Your task to perform on an android device: Open location settings Image 0: 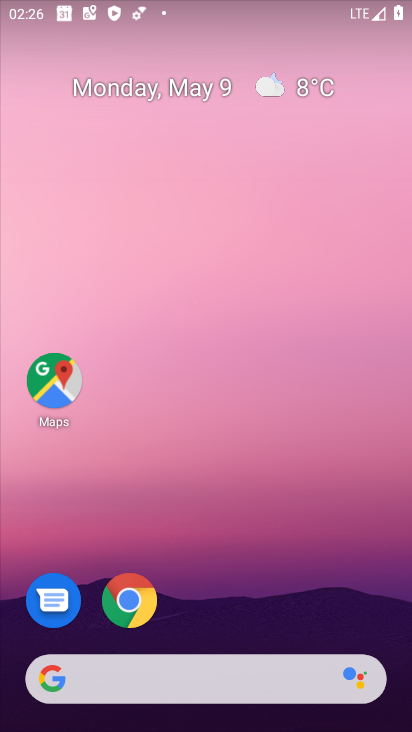
Step 0: drag from (210, 612) to (231, 191)
Your task to perform on an android device: Open location settings Image 1: 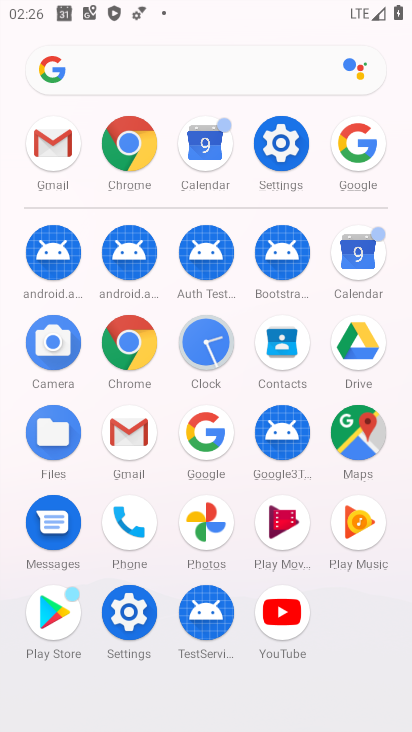
Step 1: click (126, 607)
Your task to perform on an android device: Open location settings Image 2: 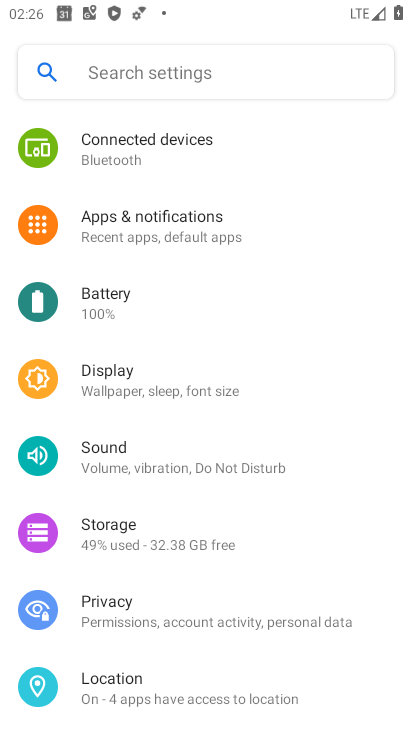
Step 2: click (163, 678)
Your task to perform on an android device: Open location settings Image 3: 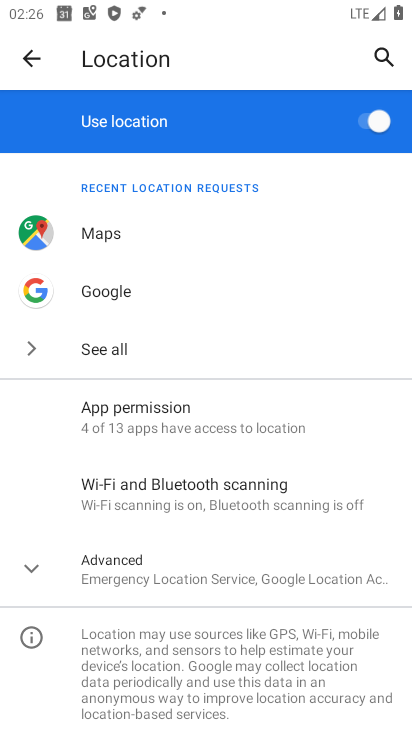
Step 3: click (36, 563)
Your task to perform on an android device: Open location settings Image 4: 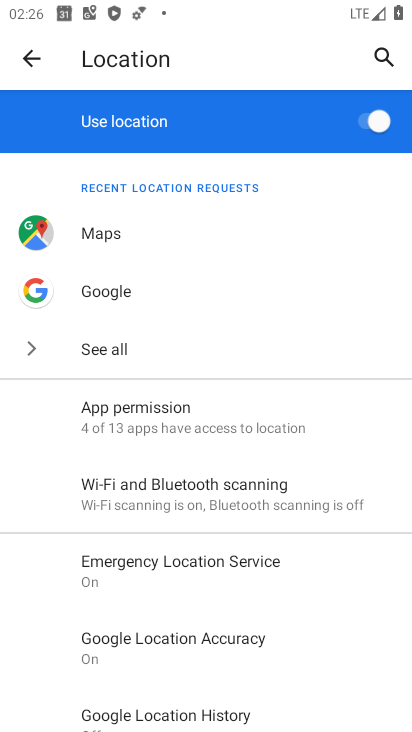
Step 4: task complete